Your task to perform on an android device: Open privacy settings Image 0: 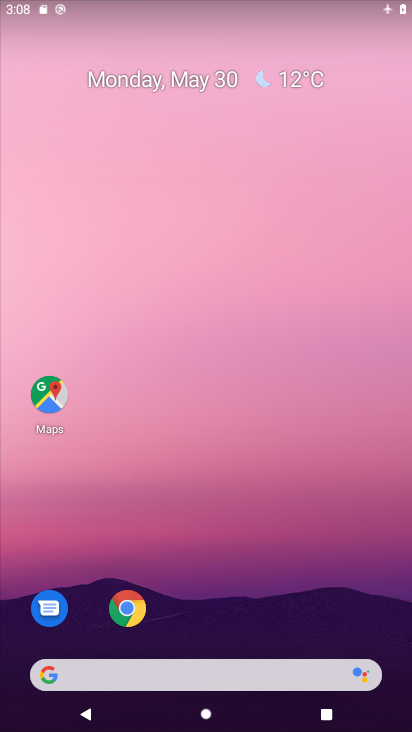
Step 0: drag from (320, 615) to (232, 34)
Your task to perform on an android device: Open privacy settings Image 1: 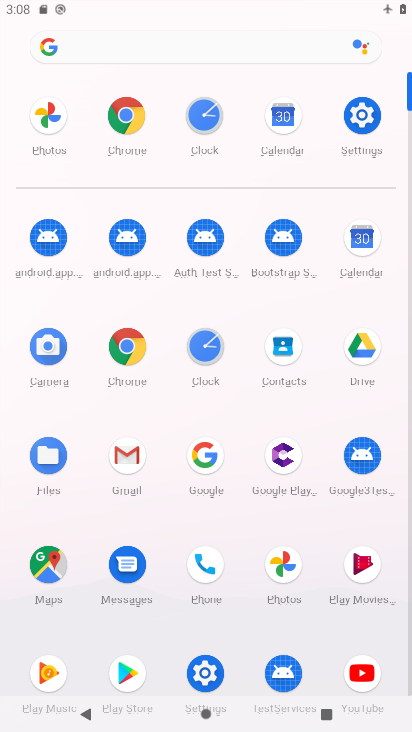
Step 1: click (361, 128)
Your task to perform on an android device: Open privacy settings Image 2: 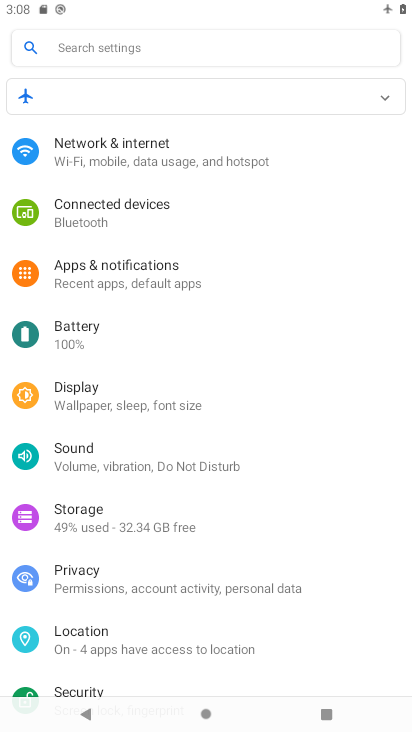
Step 2: click (158, 583)
Your task to perform on an android device: Open privacy settings Image 3: 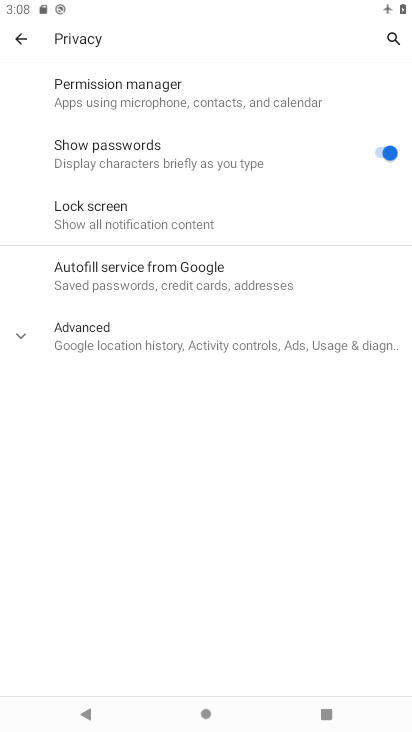
Step 3: task complete